Your task to perform on an android device: Go to Amazon Image 0: 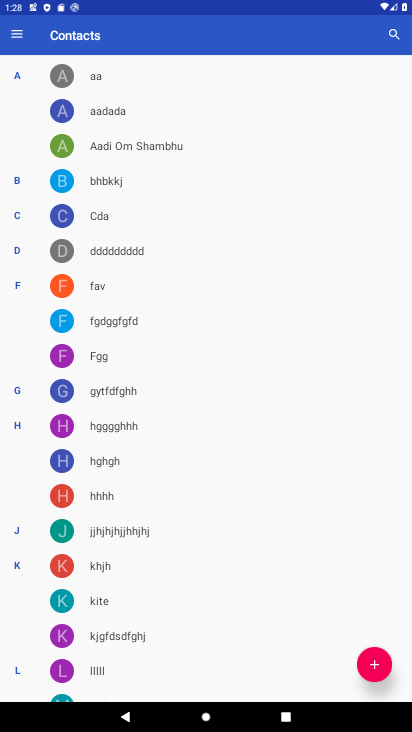
Step 0: press home button
Your task to perform on an android device: Go to Amazon Image 1: 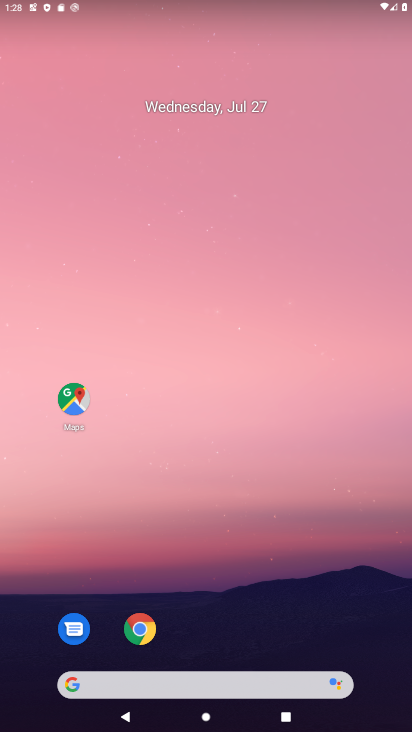
Step 1: click (141, 641)
Your task to perform on an android device: Go to Amazon Image 2: 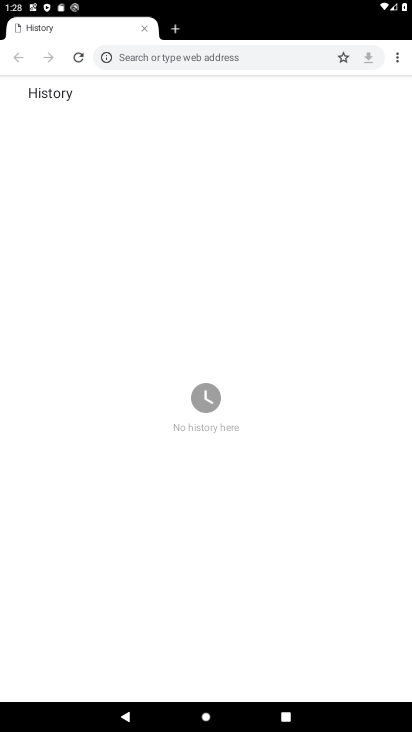
Step 2: click (175, 30)
Your task to perform on an android device: Go to Amazon Image 3: 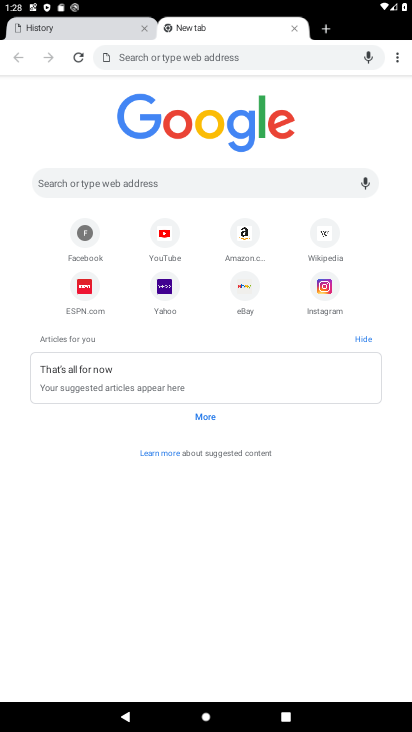
Step 3: click (242, 238)
Your task to perform on an android device: Go to Amazon Image 4: 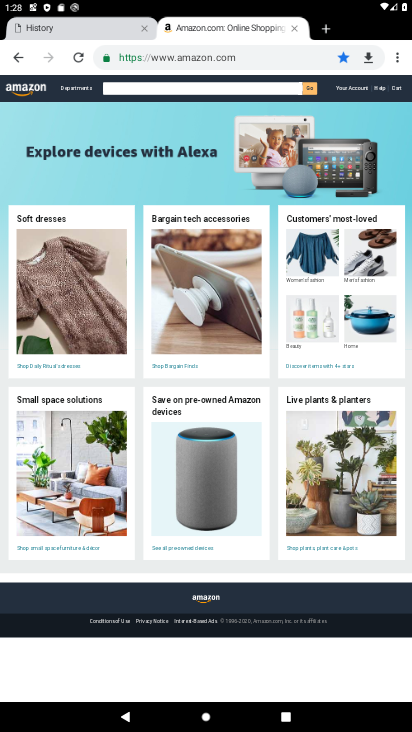
Step 4: task complete